Your task to perform on an android device: Go to notification settings Image 0: 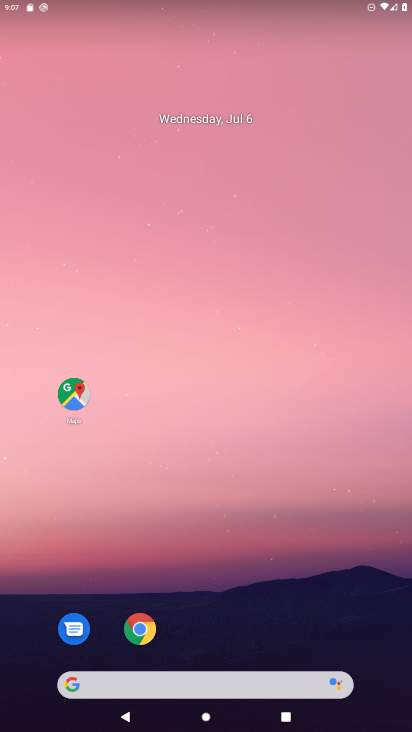
Step 0: drag from (122, 549) to (231, 7)
Your task to perform on an android device: Go to notification settings Image 1: 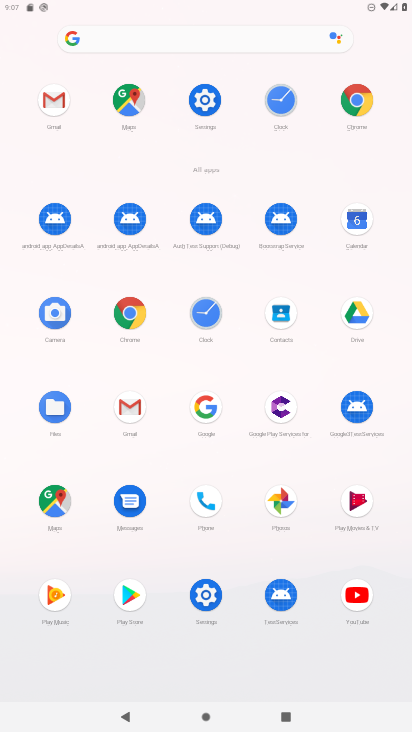
Step 1: click (206, 113)
Your task to perform on an android device: Go to notification settings Image 2: 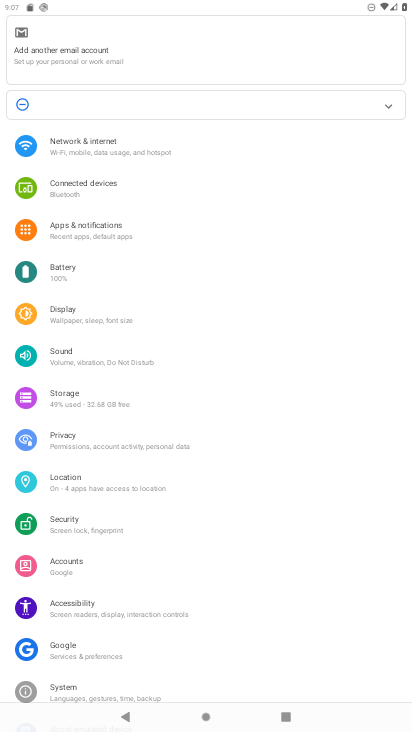
Step 2: click (105, 227)
Your task to perform on an android device: Go to notification settings Image 3: 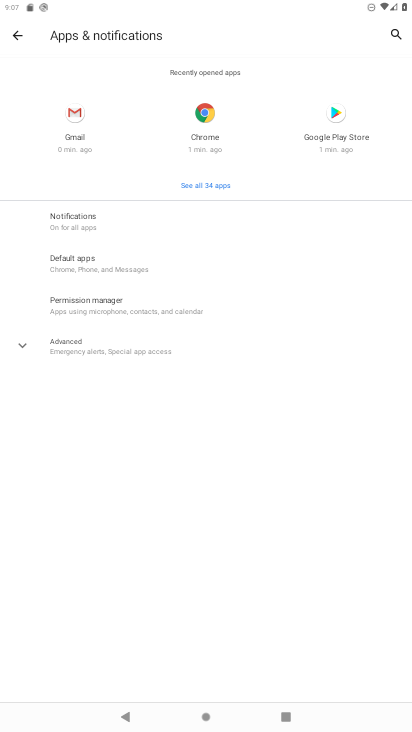
Step 3: click (124, 228)
Your task to perform on an android device: Go to notification settings Image 4: 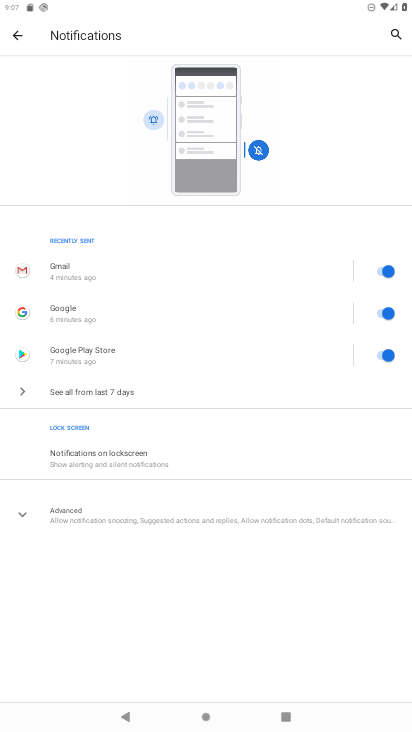
Step 4: task complete